Your task to perform on an android device: Turn off the flashlight Image 0: 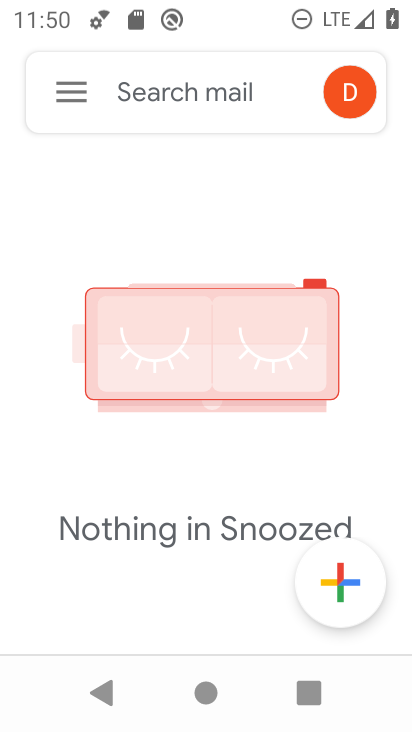
Step 0: press home button
Your task to perform on an android device: Turn off the flashlight Image 1: 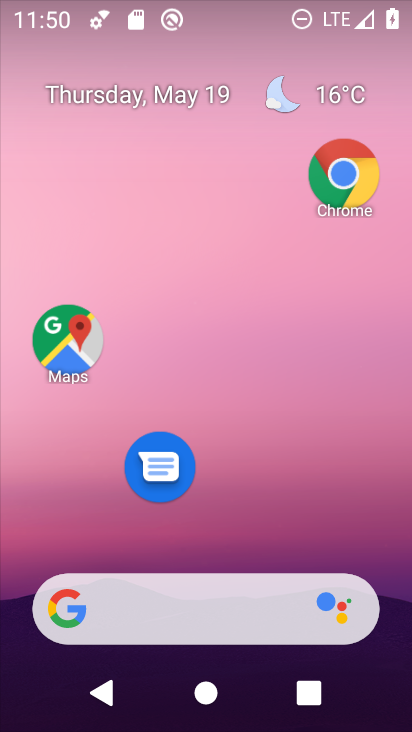
Step 1: drag from (298, 496) to (264, 188)
Your task to perform on an android device: Turn off the flashlight Image 2: 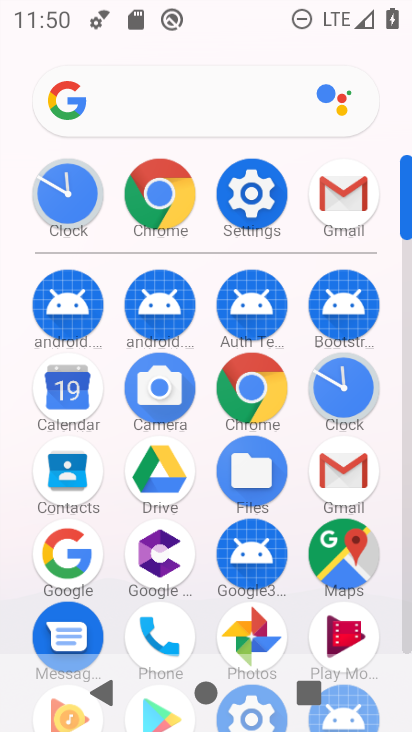
Step 2: click (251, 183)
Your task to perform on an android device: Turn off the flashlight Image 3: 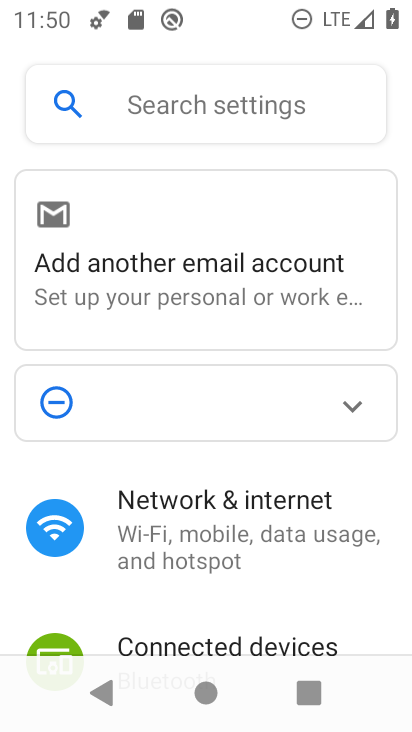
Step 3: task complete